Your task to perform on an android device: Search for asus rog on costco, select the first entry, add it to the cart, then select checkout. Image 0: 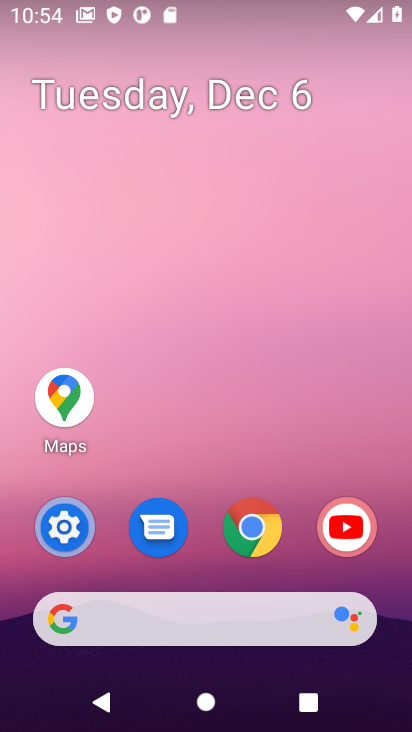
Step 0: drag from (202, 568) to (257, 105)
Your task to perform on an android device: Search for asus rog on costco, select the first entry, add it to the cart, then select checkout. Image 1: 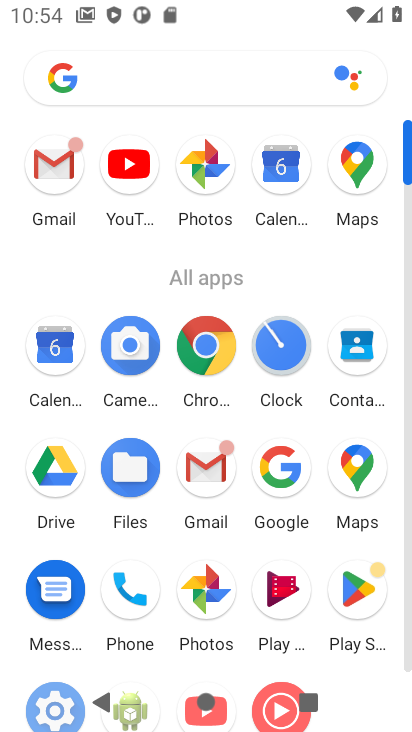
Step 1: click (289, 467)
Your task to perform on an android device: Search for asus rog on costco, select the first entry, add it to the cart, then select checkout. Image 2: 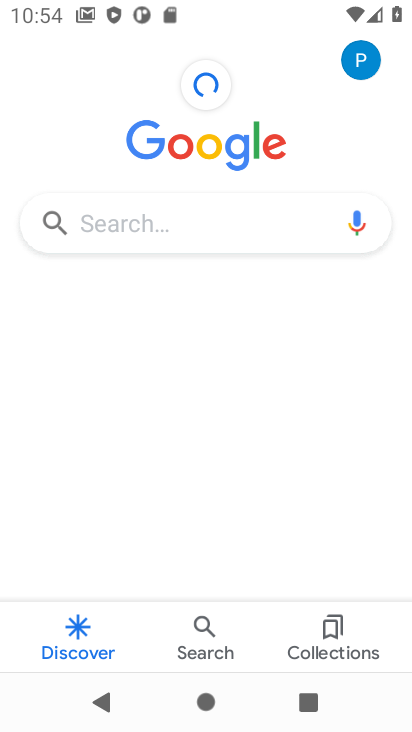
Step 2: click (152, 225)
Your task to perform on an android device: Search for asus rog on costco, select the first entry, add it to the cart, then select checkout. Image 3: 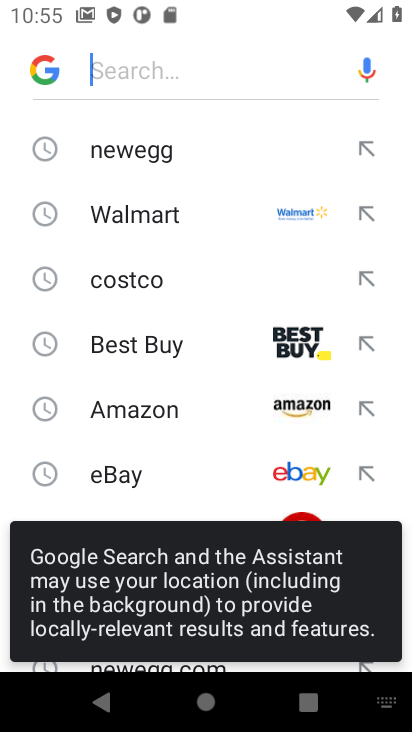
Step 3: click (125, 292)
Your task to perform on an android device: Search for asus rog on costco, select the first entry, add it to the cart, then select checkout. Image 4: 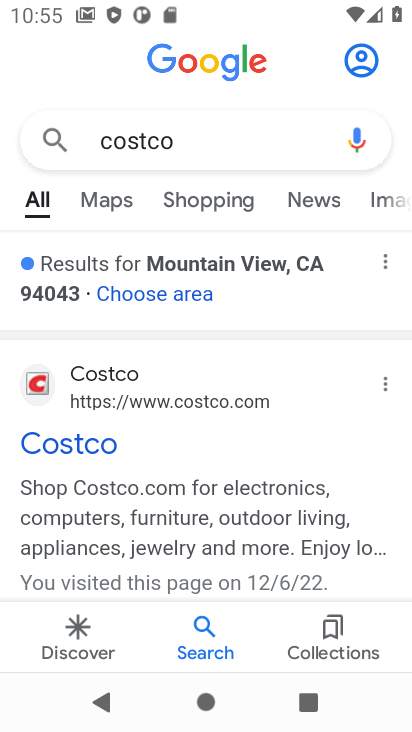
Step 4: click (91, 444)
Your task to perform on an android device: Search for asus rog on costco, select the first entry, add it to the cart, then select checkout. Image 5: 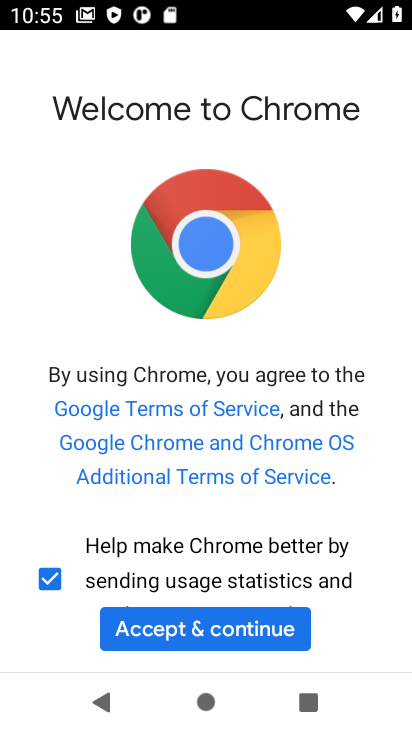
Step 5: click (260, 640)
Your task to perform on an android device: Search for asus rog on costco, select the first entry, add it to the cart, then select checkout. Image 6: 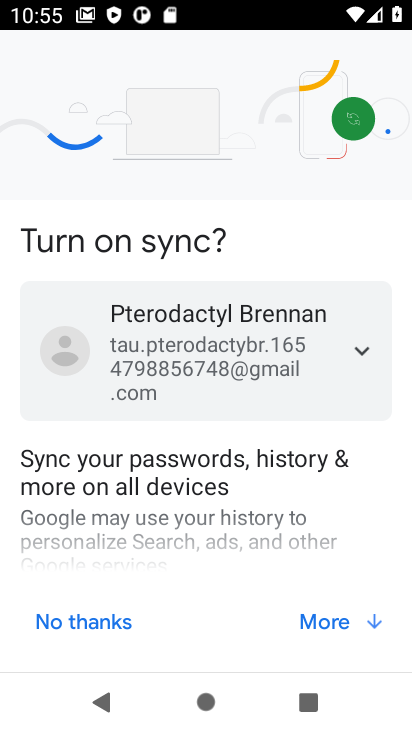
Step 6: click (339, 625)
Your task to perform on an android device: Search for asus rog on costco, select the first entry, add it to the cart, then select checkout. Image 7: 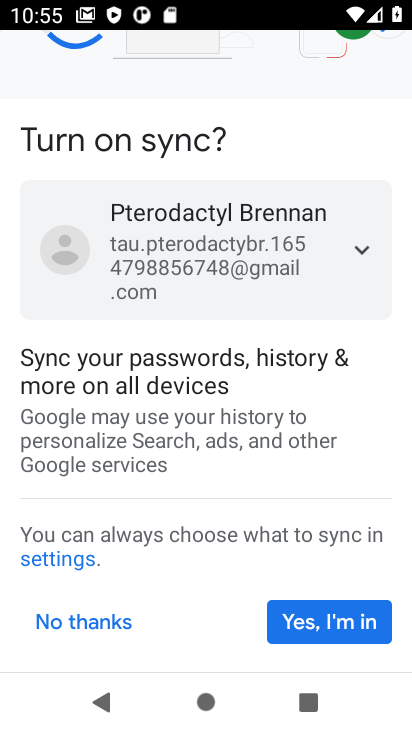
Step 7: click (339, 625)
Your task to perform on an android device: Search for asus rog on costco, select the first entry, add it to the cart, then select checkout. Image 8: 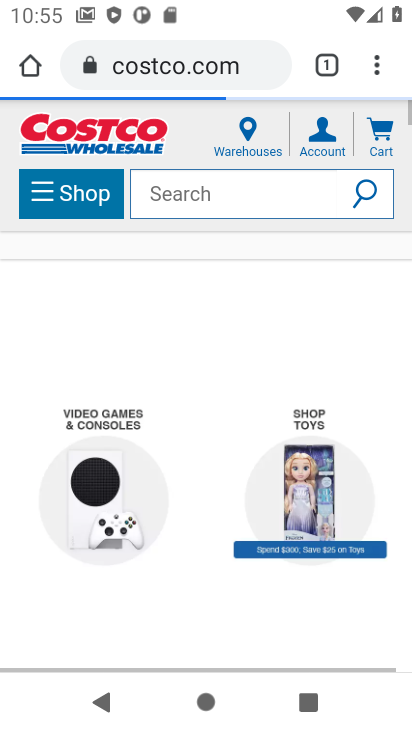
Step 8: click (200, 183)
Your task to perform on an android device: Search for asus rog on costco, select the first entry, add it to the cart, then select checkout. Image 9: 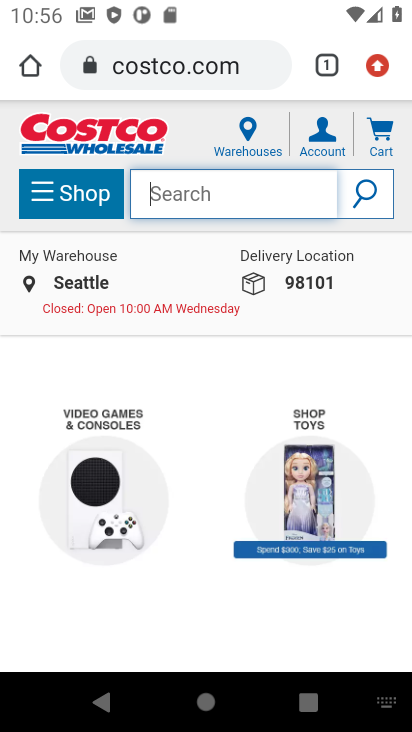
Step 9: type "asus rog"
Your task to perform on an android device: Search for asus rog on costco, select the first entry, add it to the cart, then select checkout. Image 10: 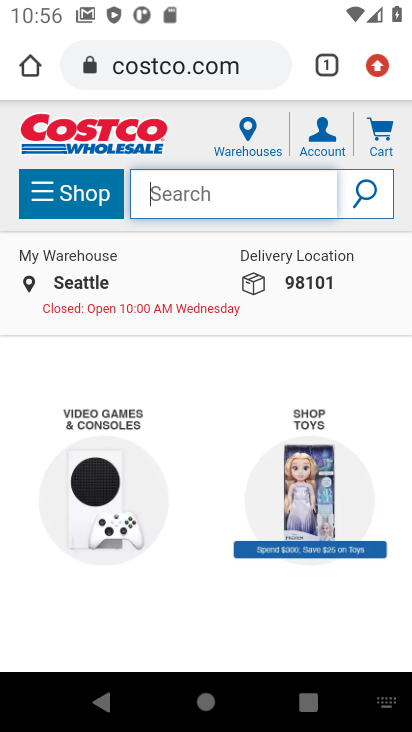
Step 10: click (364, 198)
Your task to perform on an android device: Search for asus rog on costco, select the first entry, add it to the cart, then select checkout. Image 11: 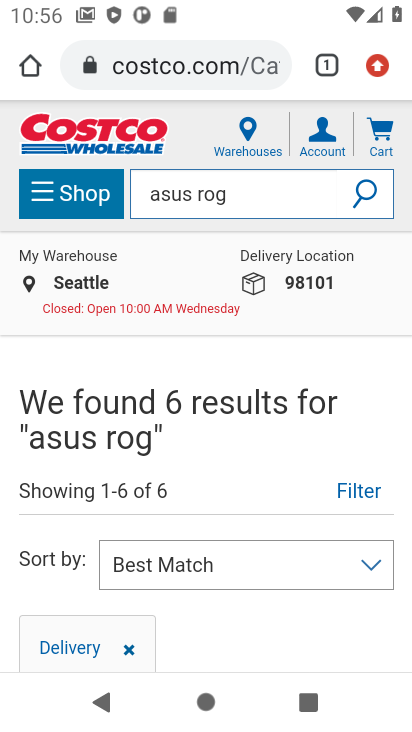
Step 11: drag from (222, 516) to (231, 381)
Your task to perform on an android device: Search for asus rog on costco, select the first entry, add it to the cart, then select checkout. Image 12: 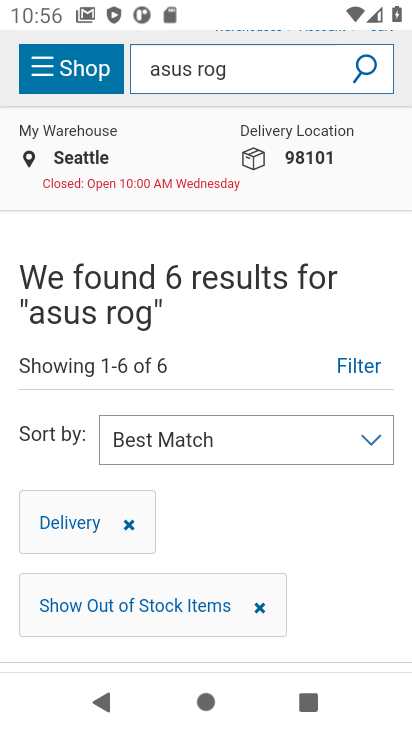
Step 12: drag from (252, 605) to (253, 282)
Your task to perform on an android device: Search for asus rog on costco, select the first entry, add it to the cart, then select checkout. Image 13: 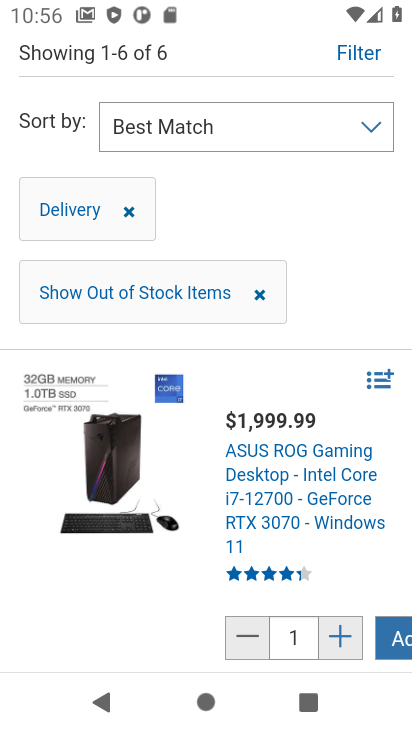
Step 13: click (395, 650)
Your task to perform on an android device: Search for asus rog on costco, select the first entry, add it to the cart, then select checkout. Image 14: 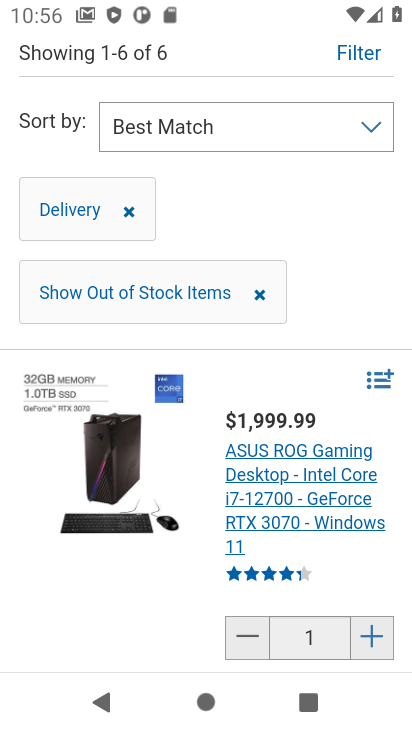
Step 14: drag from (288, 180) to (295, 526)
Your task to perform on an android device: Search for asus rog on costco, select the first entry, add it to the cart, then select checkout. Image 15: 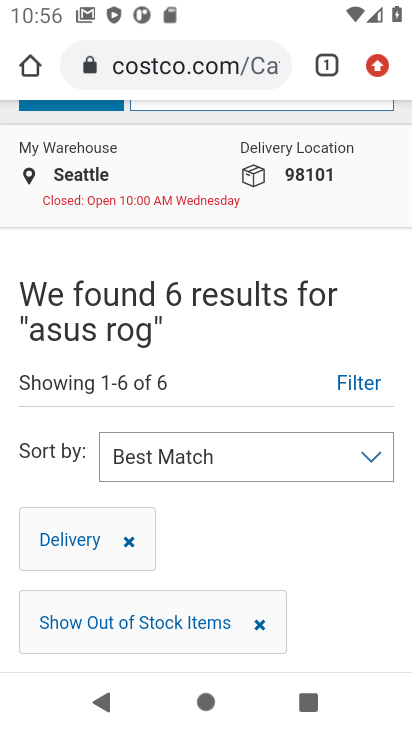
Step 15: drag from (311, 270) to (322, 452)
Your task to perform on an android device: Search for asus rog on costco, select the first entry, add it to the cart, then select checkout. Image 16: 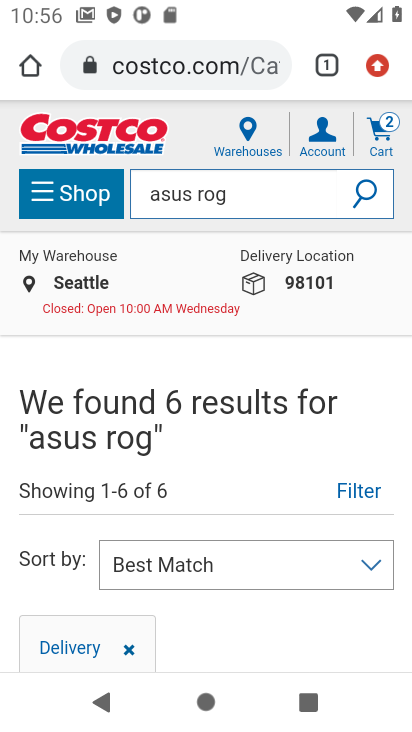
Step 16: click (387, 134)
Your task to perform on an android device: Search for asus rog on costco, select the first entry, add it to the cart, then select checkout. Image 17: 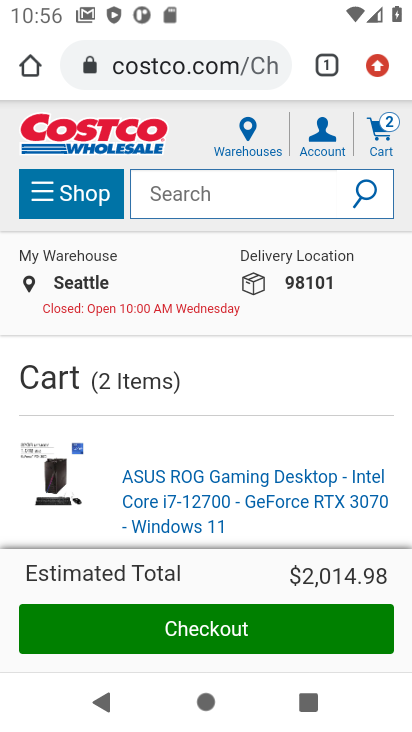
Step 17: click (244, 635)
Your task to perform on an android device: Search for asus rog on costco, select the first entry, add it to the cart, then select checkout. Image 18: 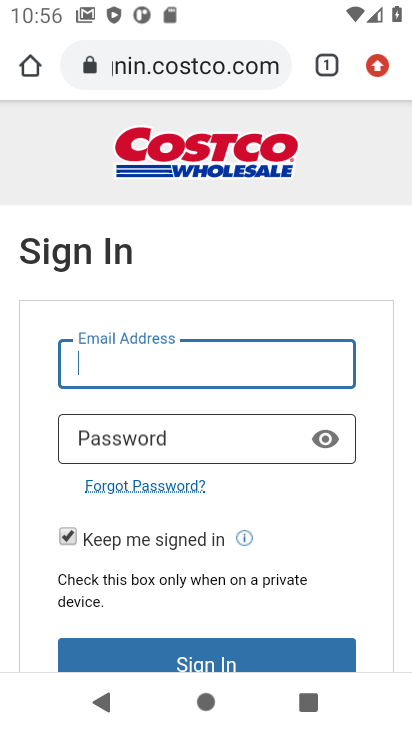
Step 18: task complete